Your task to perform on an android device: install app "Flipkart Online Shopping App" Image 0: 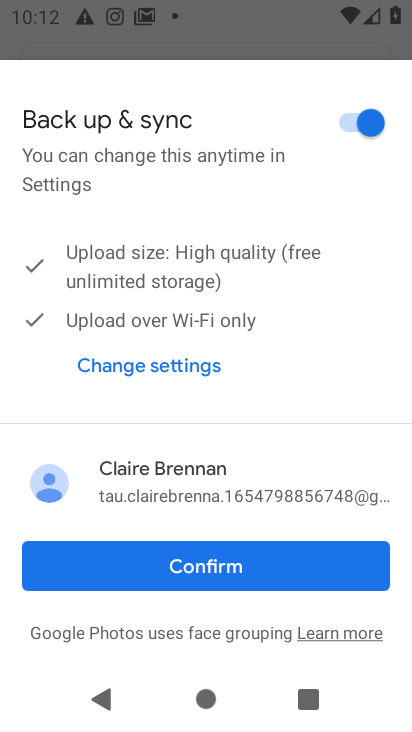
Step 0: press home button
Your task to perform on an android device: install app "Flipkart Online Shopping App" Image 1: 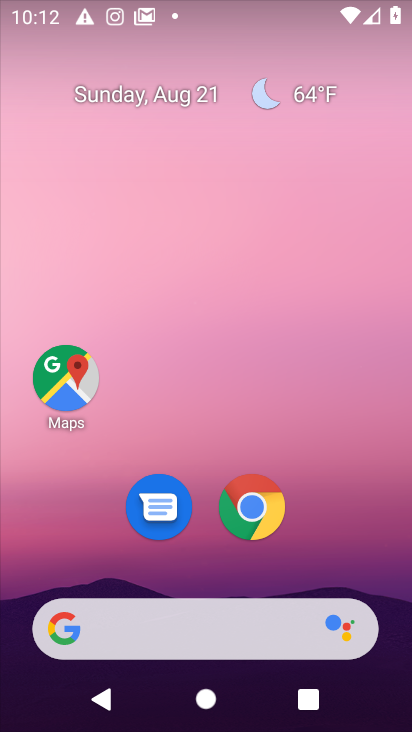
Step 1: drag from (192, 475) to (192, 79)
Your task to perform on an android device: install app "Flipkart Online Shopping App" Image 2: 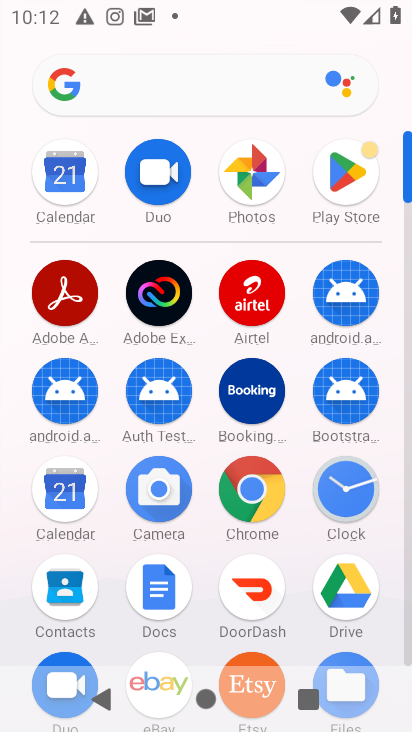
Step 2: click (355, 164)
Your task to perform on an android device: install app "Flipkart Online Shopping App" Image 3: 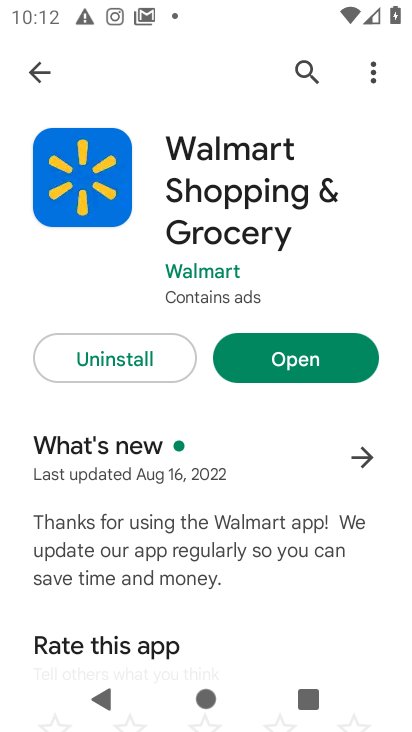
Step 3: click (29, 80)
Your task to perform on an android device: install app "Flipkart Online Shopping App" Image 4: 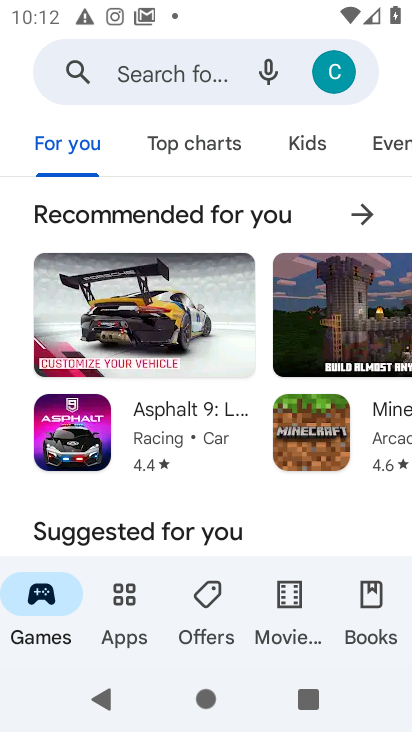
Step 4: click (165, 62)
Your task to perform on an android device: install app "Flipkart Online Shopping App" Image 5: 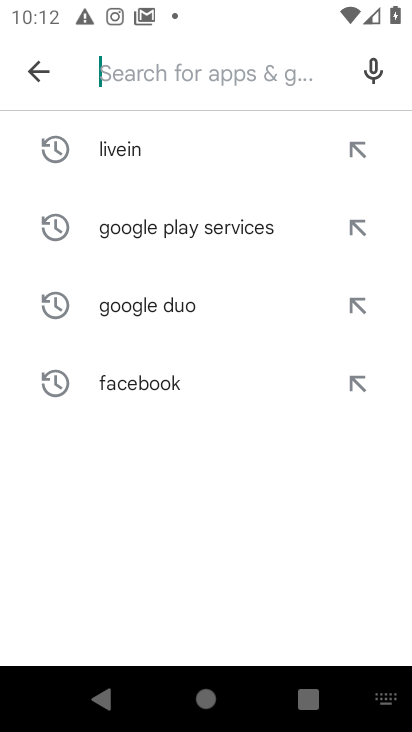
Step 5: type "Flipkart Online Shopping App"
Your task to perform on an android device: install app "Flipkart Online Shopping App" Image 6: 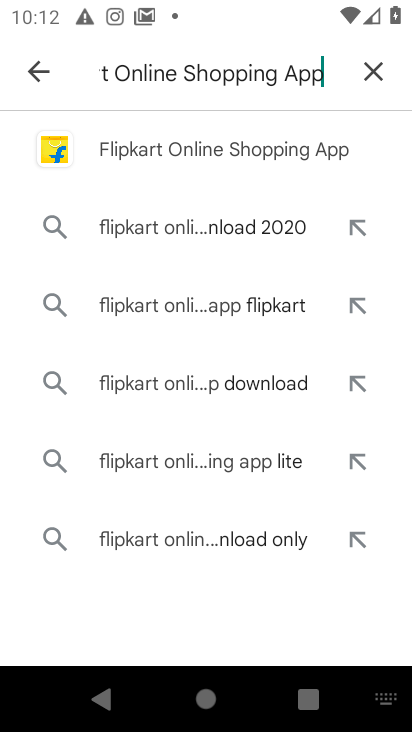
Step 6: click (157, 150)
Your task to perform on an android device: install app "Flipkart Online Shopping App" Image 7: 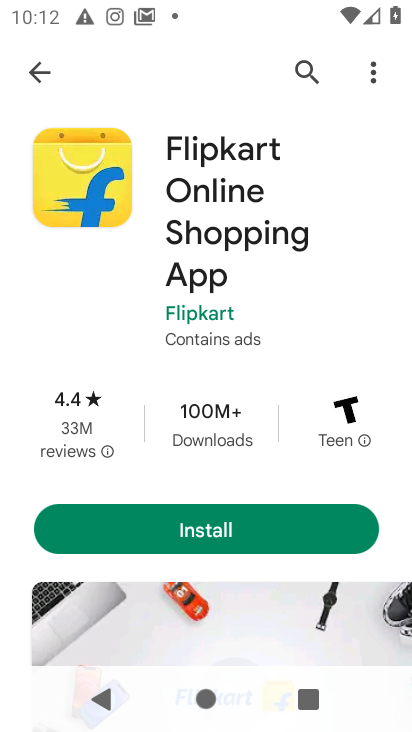
Step 7: click (194, 524)
Your task to perform on an android device: install app "Flipkart Online Shopping App" Image 8: 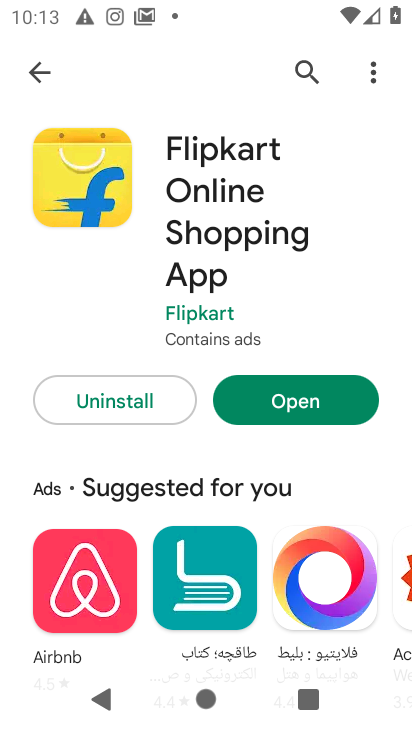
Step 8: click (276, 419)
Your task to perform on an android device: install app "Flipkart Online Shopping App" Image 9: 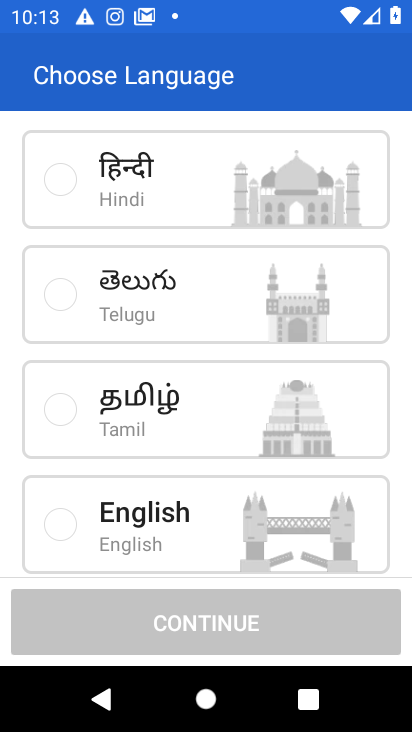
Step 9: click (60, 521)
Your task to perform on an android device: install app "Flipkart Online Shopping App" Image 10: 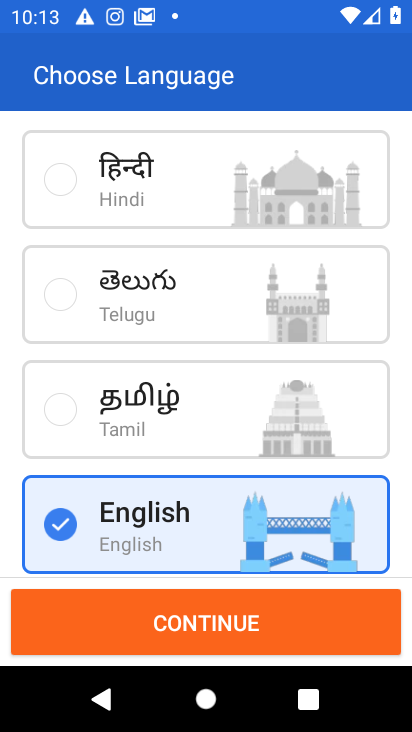
Step 10: click (189, 616)
Your task to perform on an android device: install app "Flipkart Online Shopping App" Image 11: 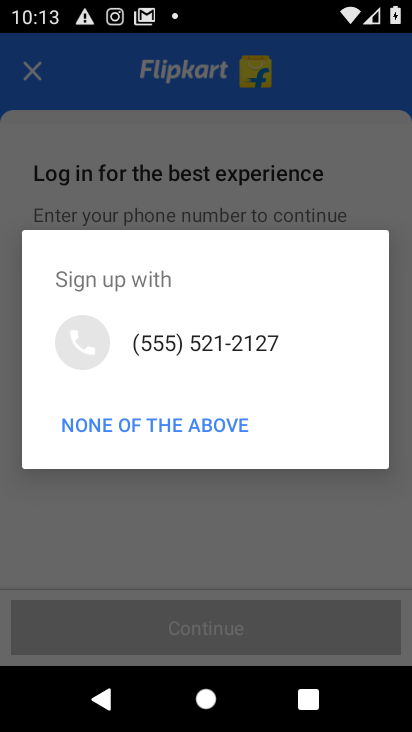
Step 11: click (188, 346)
Your task to perform on an android device: install app "Flipkart Online Shopping App" Image 12: 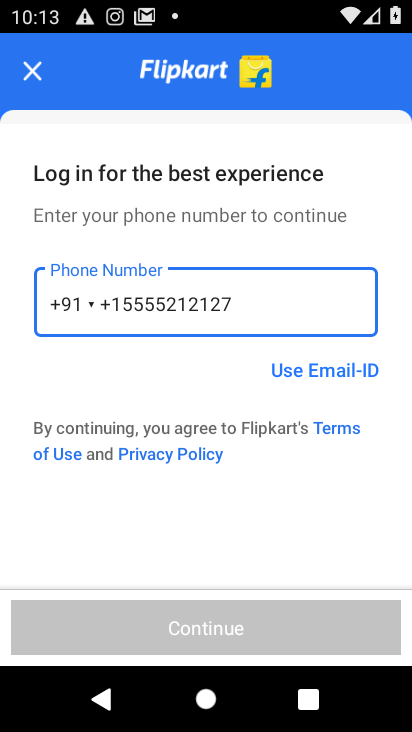
Step 12: task complete